Your task to perform on an android device: Check the news Image 0: 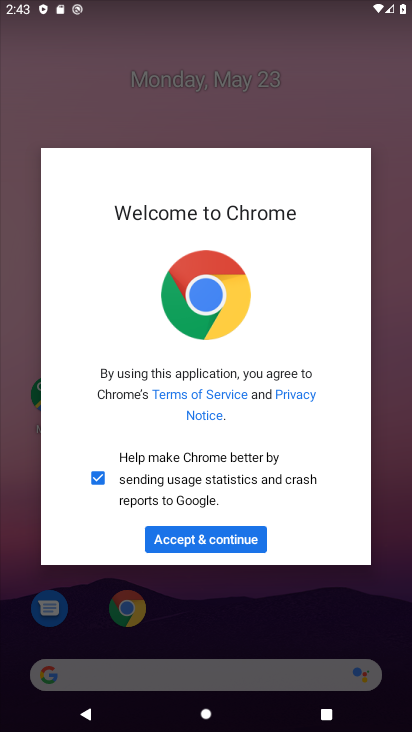
Step 0: press home button
Your task to perform on an android device: Check the news Image 1: 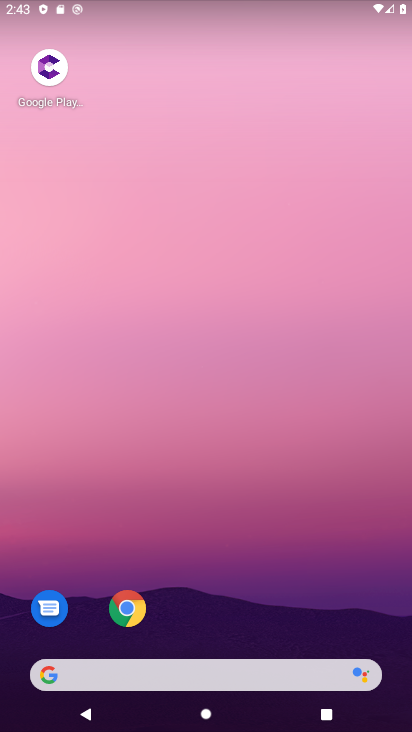
Step 1: drag from (367, 557) to (321, 75)
Your task to perform on an android device: Check the news Image 2: 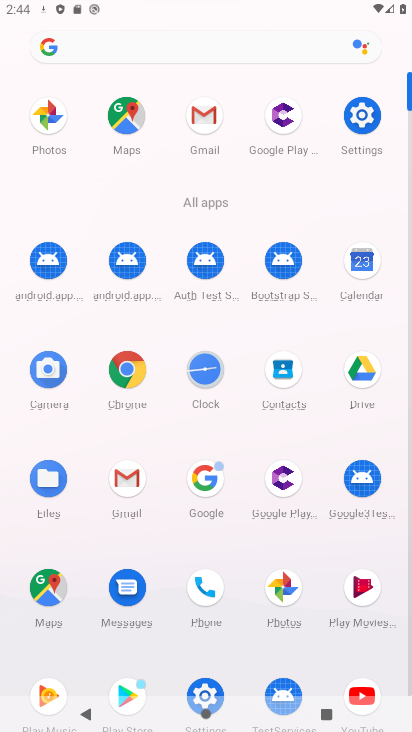
Step 2: click (118, 375)
Your task to perform on an android device: Check the news Image 3: 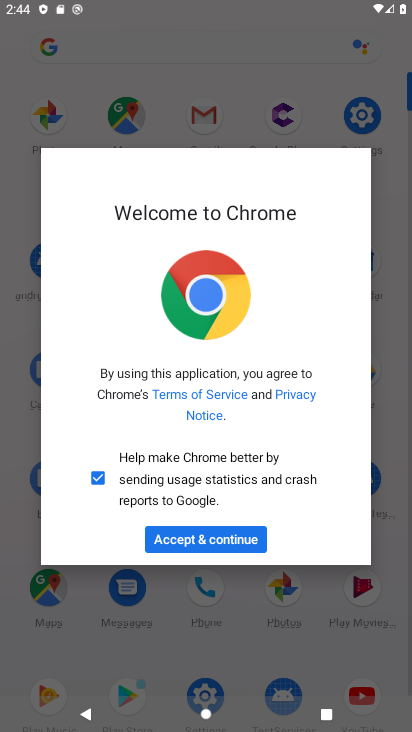
Step 3: click (190, 545)
Your task to perform on an android device: Check the news Image 4: 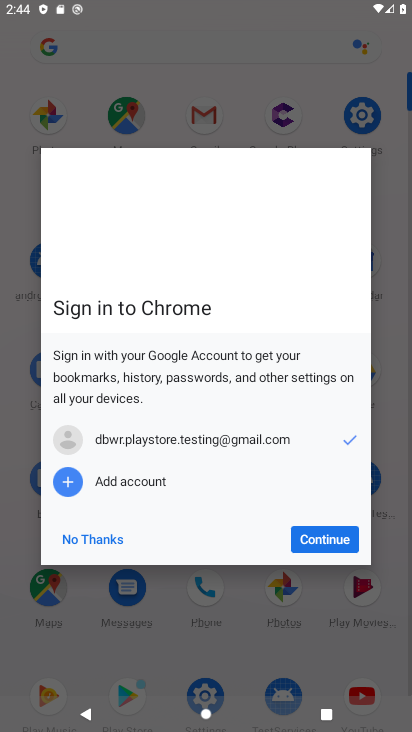
Step 4: click (312, 538)
Your task to perform on an android device: Check the news Image 5: 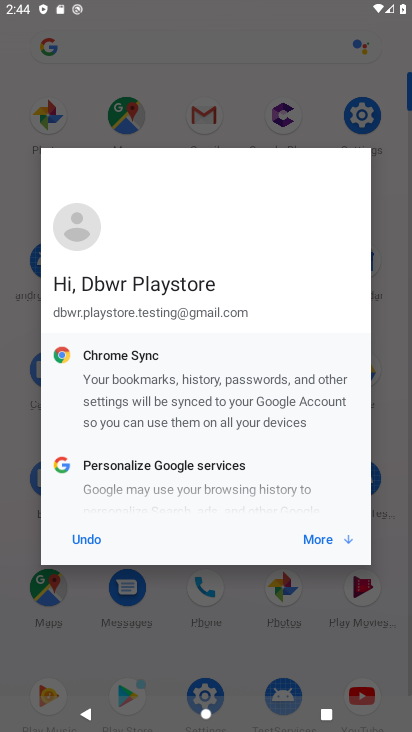
Step 5: click (319, 534)
Your task to perform on an android device: Check the news Image 6: 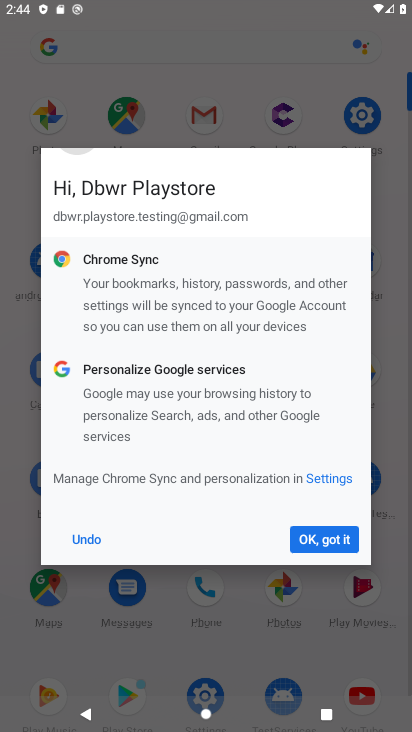
Step 6: click (326, 535)
Your task to perform on an android device: Check the news Image 7: 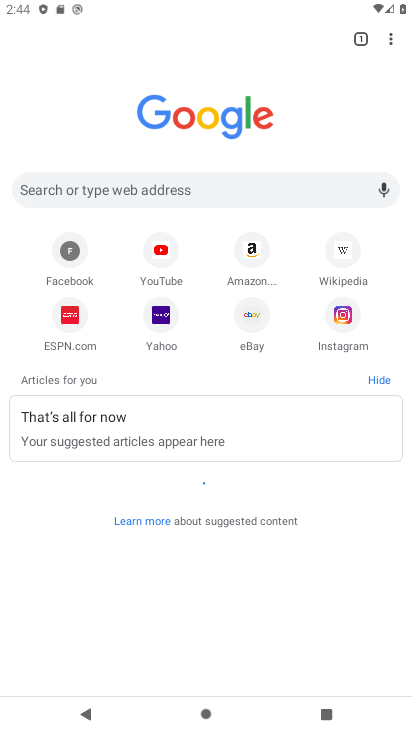
Step 7: click (204, 200)
Your task to perform on an android device: Check the news Image 8: 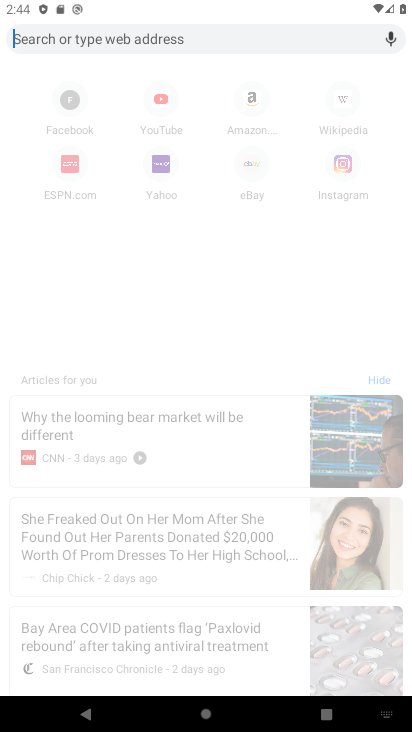
Step 8: type "check the news"
Your task to perform on an android device: Check the news Image 9: 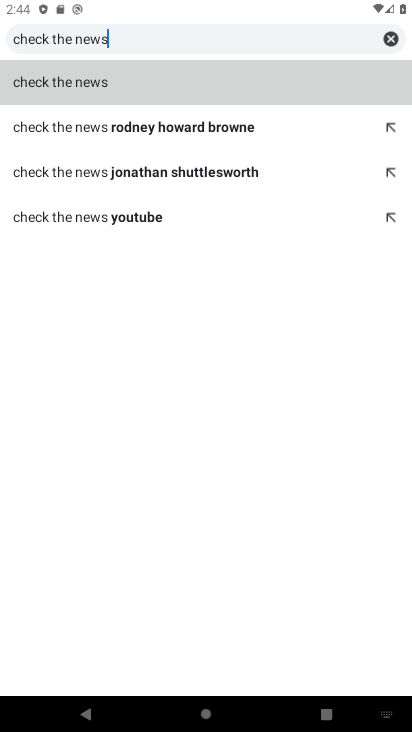
Step 9: click (240, 89)
Your task to perform on an android device: Check the news Image 10: 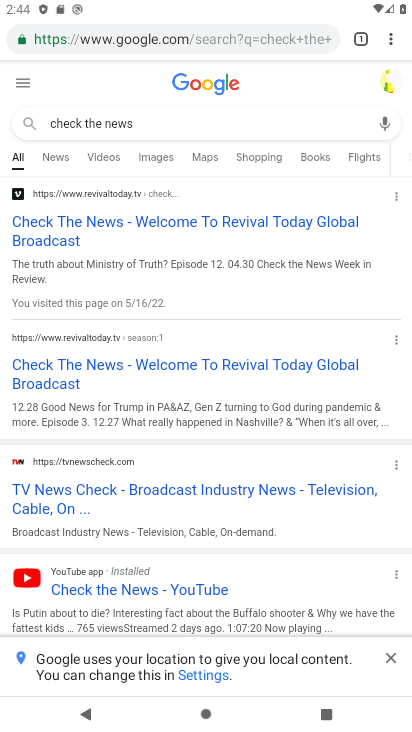
Step 10: task complete